Your task to perform on an android device: Go to eBay Image 0: 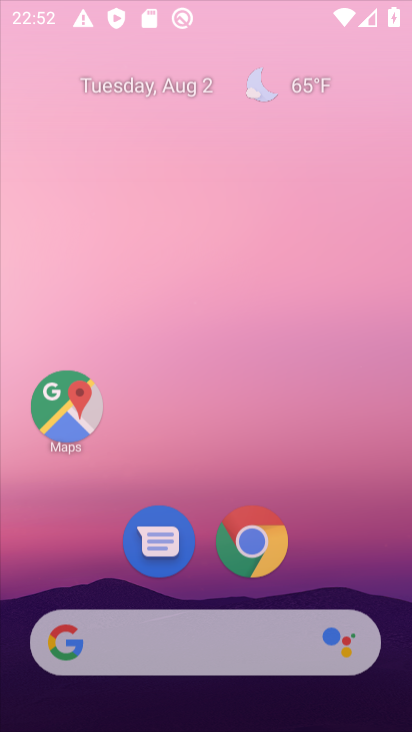
Step 0: drag from (212, 646) to (164, 142)
Your task to perform on an android device: Go to eBay Image 1: 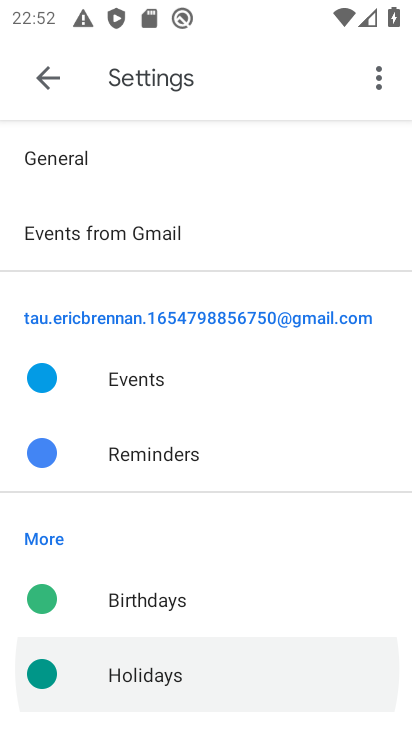
Step 1: drag from (222, 546) to (204, 223)
Your task to perform on an android device: Go to eBay Image 2: 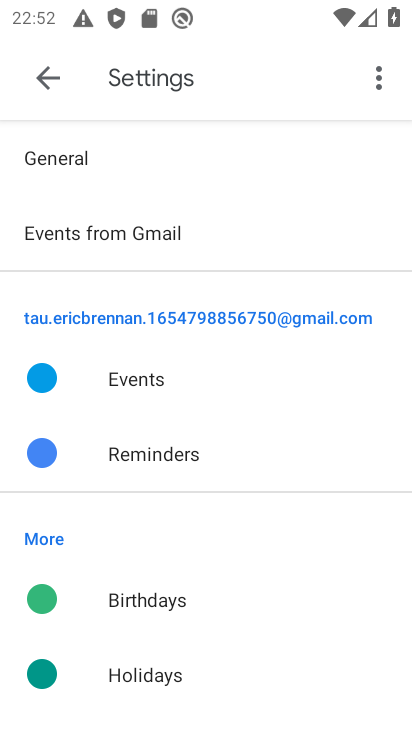
Step 2: click (39, 74)
Your task to perform on an android device: Go to eBay Image 3: 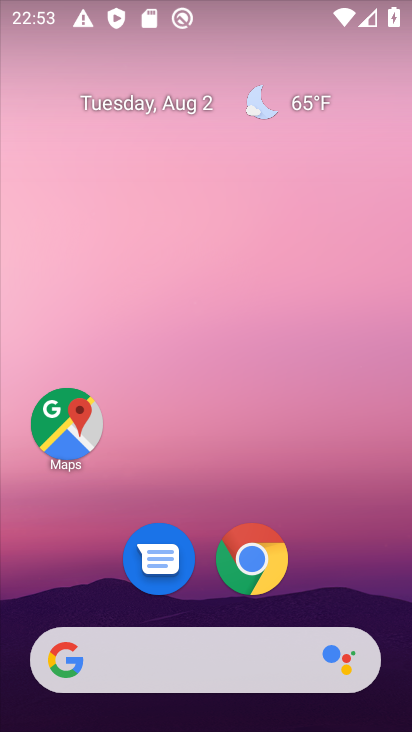
Step 3: drag from (218, 459) to (207, 182)
Your task to perform on an android device: Go to eBay Image 4: 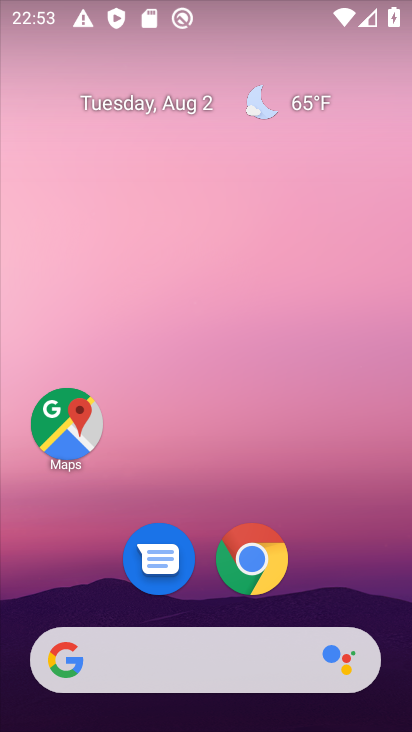
Step 4: drag from (169, 609) to (181, 271)
Your task to perform on an android device: Go to eBay Image 5: 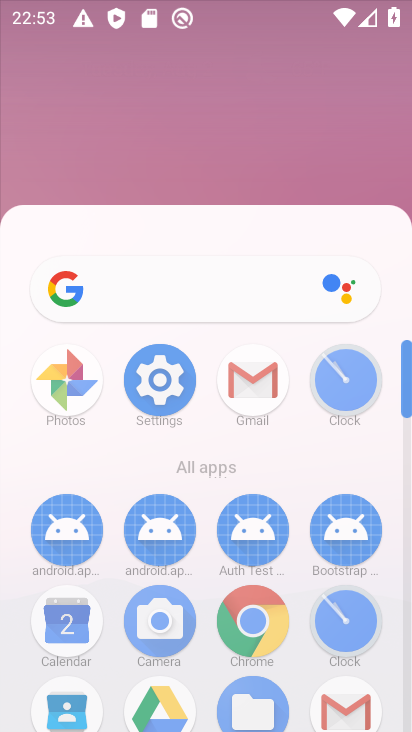
Step 5: drag from (235, 516) to (211, 195)
Your task to perform on an android device: Go to eBay Image 6: 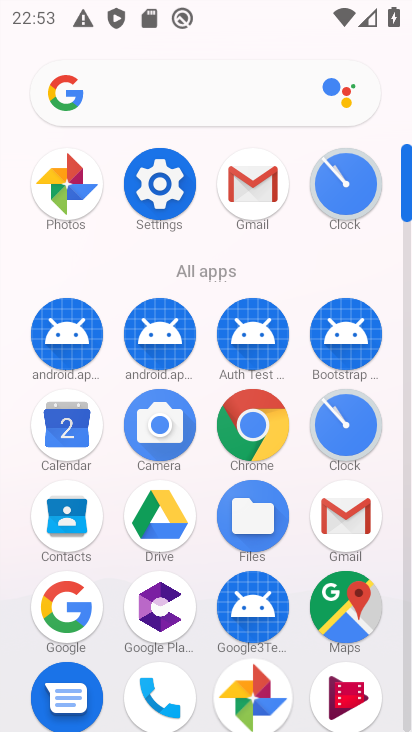
Step 6: drag from (191, 508) to (181, 198)
Your task to perform on an android device: Go to eBay Image 7: 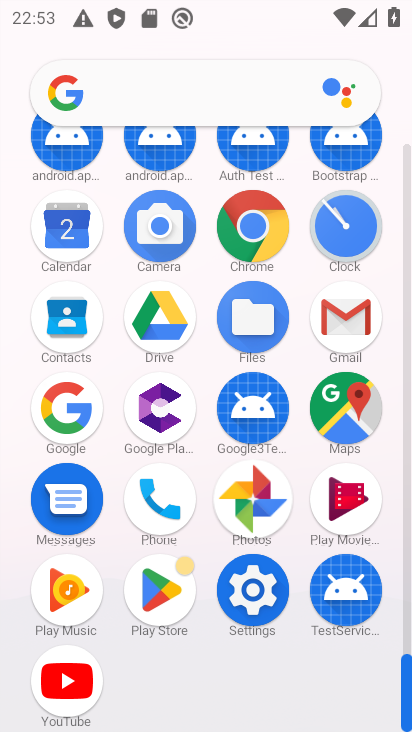
Step 7: click (261, 224)
Your task to perform on an android device: Go to eBay Image 8: 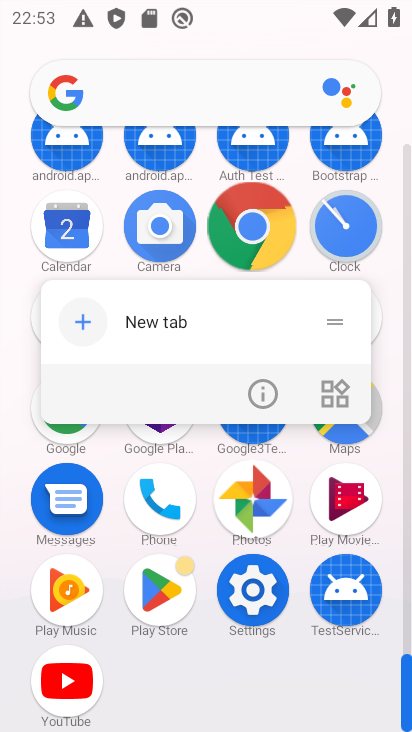
Step 8: click (260, 225)
Your task to perform on an android device: Go to eBay Image 9: 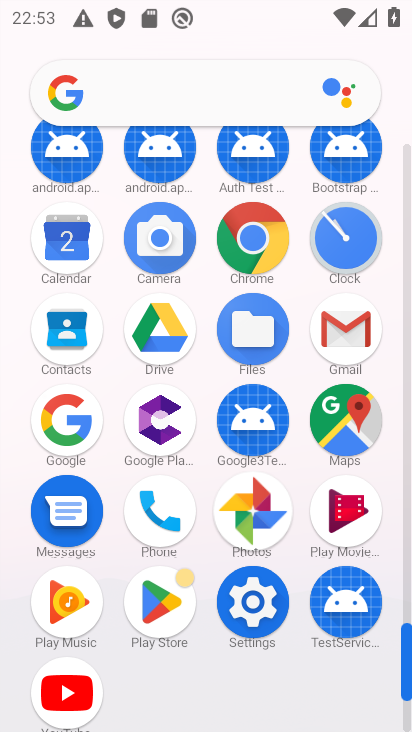
Step 9: click (240, 253)
Your task to perform on an android device: Go to eBay Image 10: 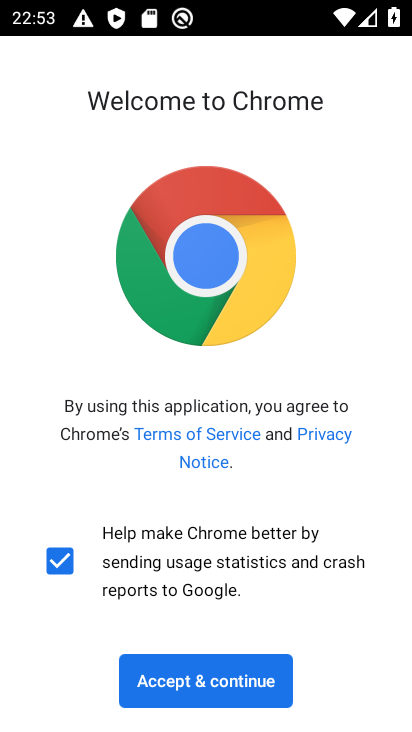
Step 10: click (211, 677)
Your task to perform on an android device: Go to eBay Image 11: 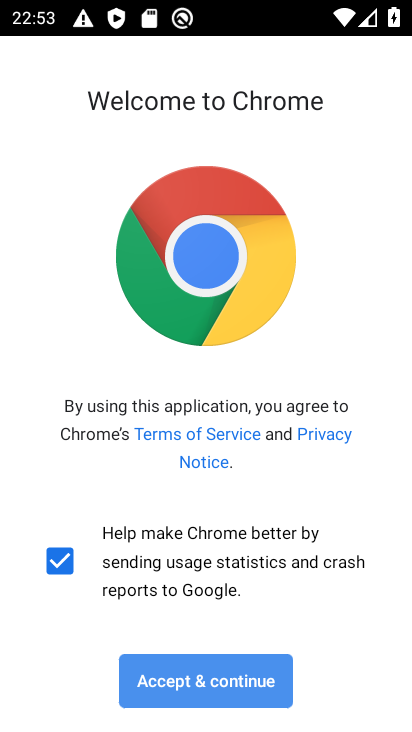
Step 11: click (218, 677)
Your task to perform on an android device: Go to eBay Image 12: 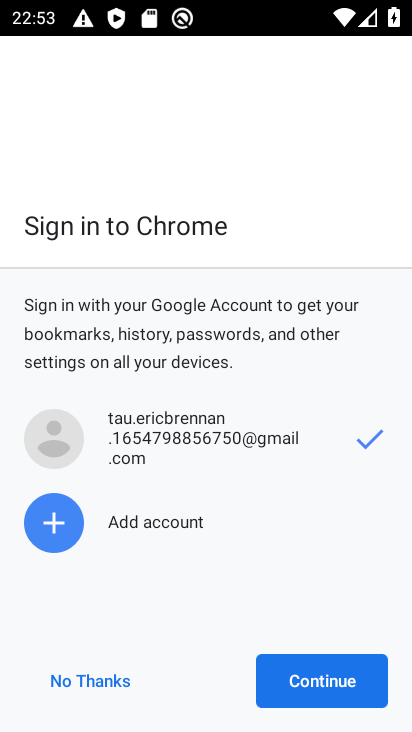
Step 12: click (218, 677)
Your task to perform on an android device: Go to eBay Image 13: 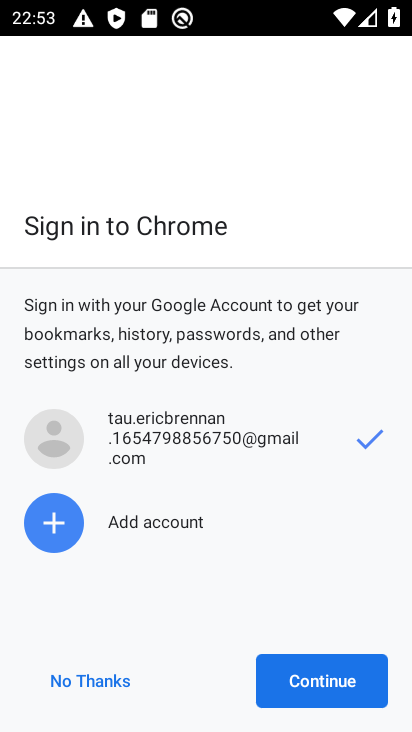
Step 13: click (218, 677)
Your task to perform on an android device: Go to eBay Image 14: 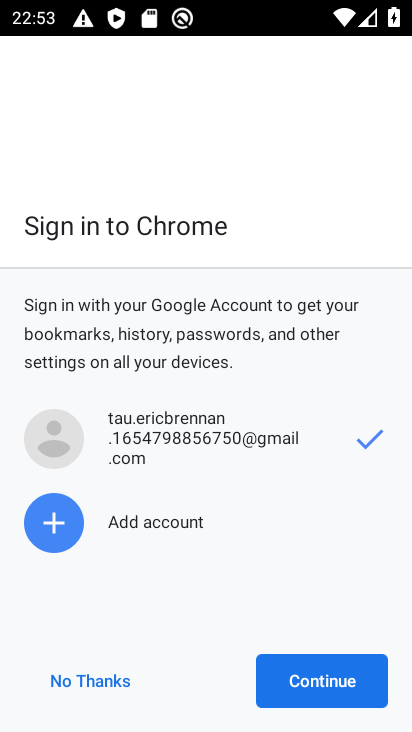
Step 14: click (93, 687)
Your task to perform on an android device: Go to eBay Image 15: 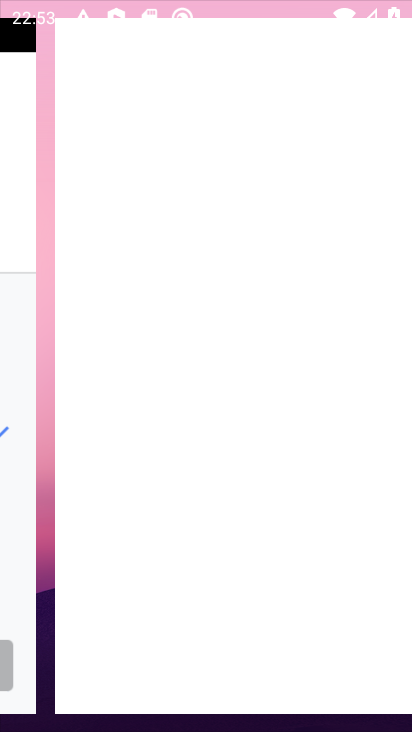
Step 15: click (93, 687)
Your task to perform on an android device: Go to eBay Image 16: 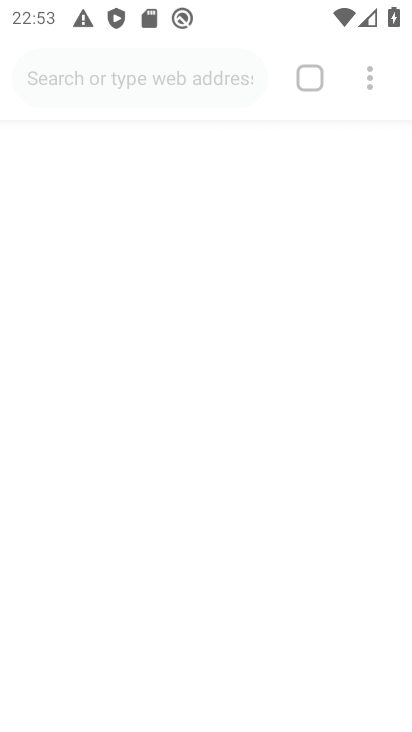
Step 16: click (93, 687)
Your task to perform on an android device: Go to eBay Image 17: 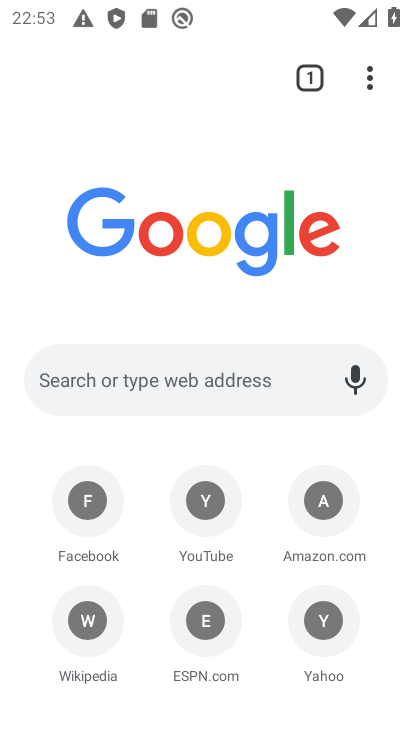
Step 17: click (79, 70)
Your task to perform on an android device: Go to eBay Image 18: 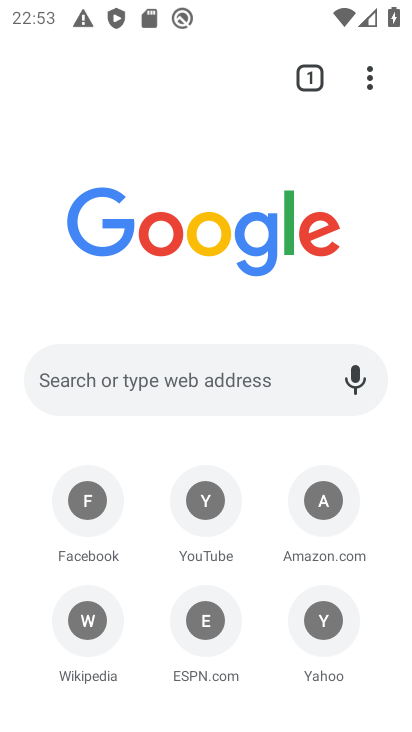
Step 18: click (79, 70)
Your task to perform on an android device: Go to eBay Image 19: 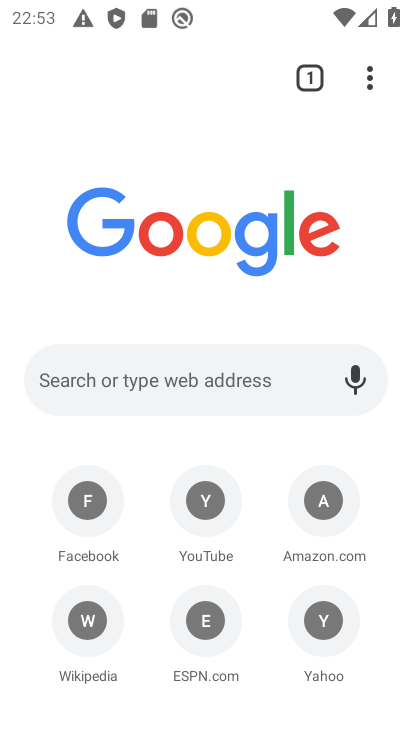
Step 19: click (79, 70)
Your task to perform on an android device: Go to eBay Image 20: 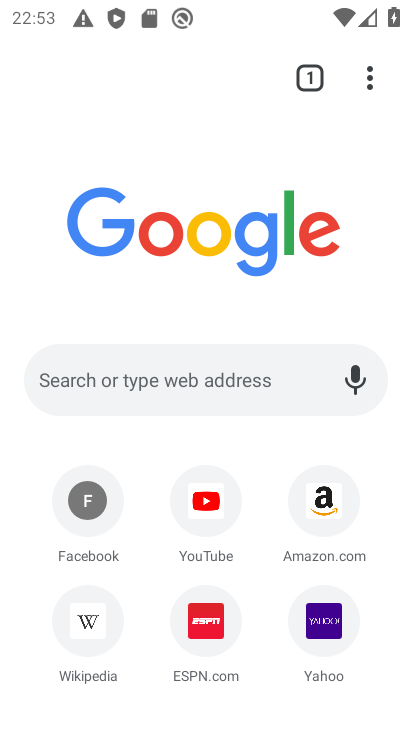
Step 20: click (105, 369)
Your task to perform on an android device: Go to eBay Image 21: 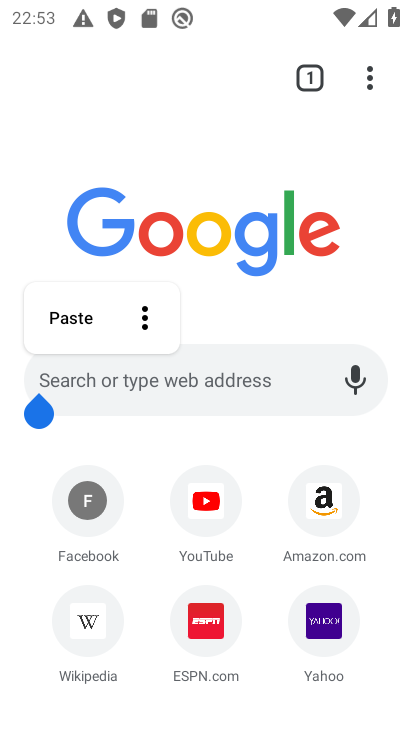
Step 21: click (104, 384)
Your task to perform on an android device: Go to eBay Image 22: 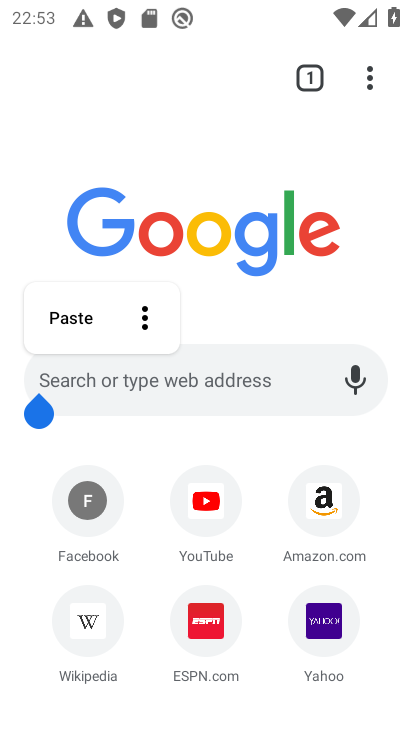
Step 22: type "ebay"
Your task to perform on an android device: Go to eBay Image 23: 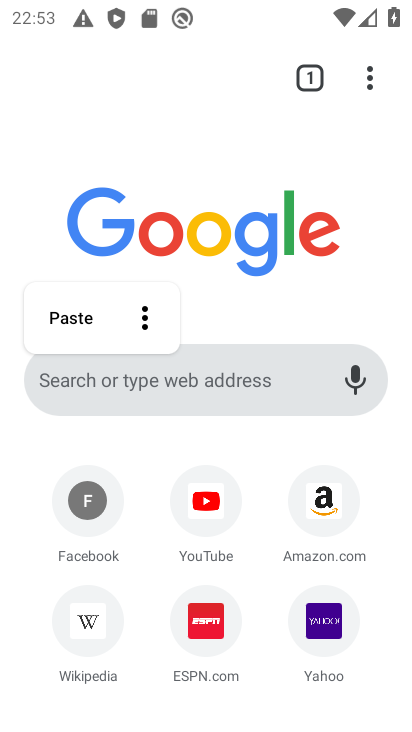
Step 23: click (132, 379)
Your task to perform on an android device: Go to eBay Image 24: 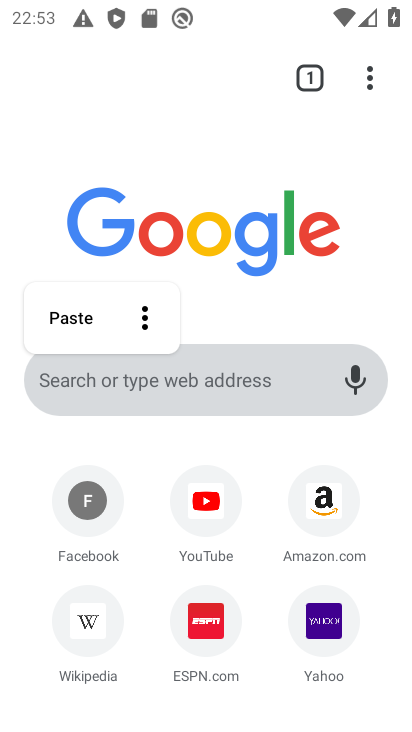
Step 24: click (133, 379)
Your task to perform on an android device: Go to eBay Image 25: 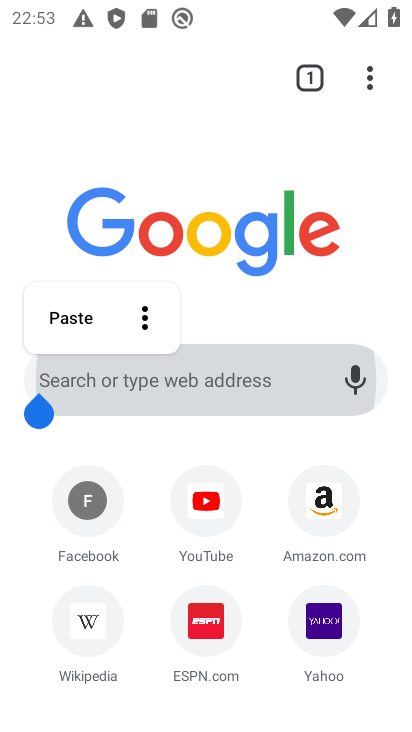
Step 25: click (139, 375)
Your task to perform on an android device: Go to eBay Image 26: 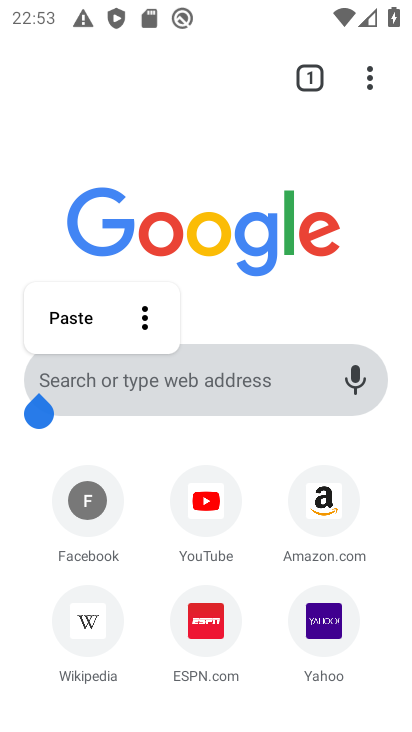
Step 26: click (140, 375)
Your task to perform on an android device: Go to eBay Image 27: 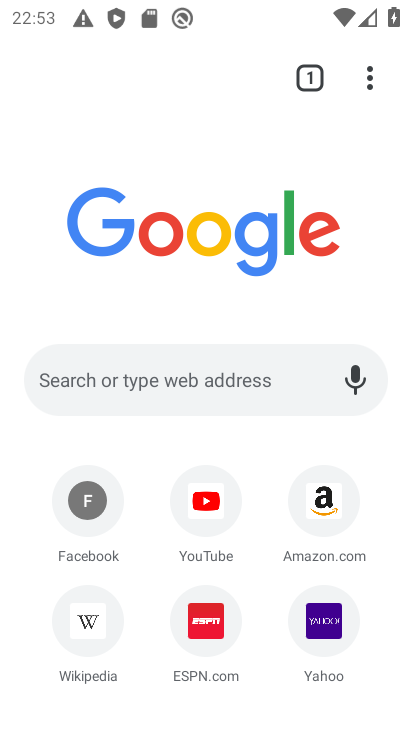
Step 27: click (93, 369)
Your task to perform on an android device: Go to eBay Image 28: 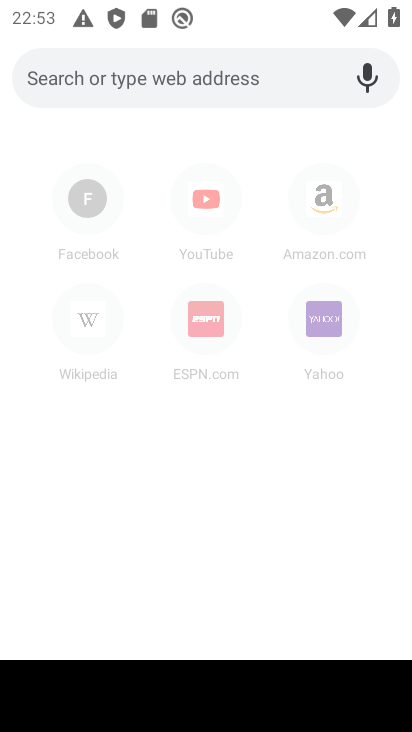
Step 28: type "ebay"
Your task to perform on an android device: Go to eBay Image 29: 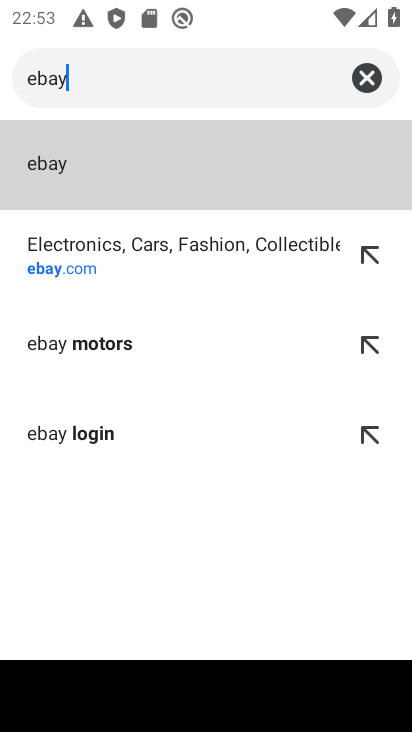
Step 29: click (60, 174)
Your task to perform on an android device: Go to eBay Image 30: 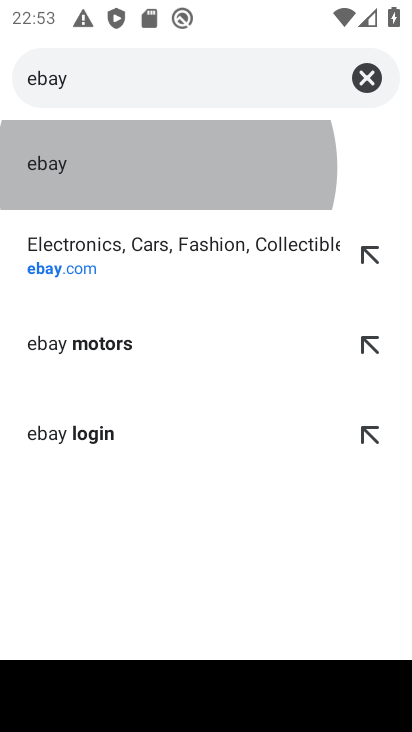
Step 30: click (60, 174)
Your task to perform on an android device: Go to eBay Image 31: 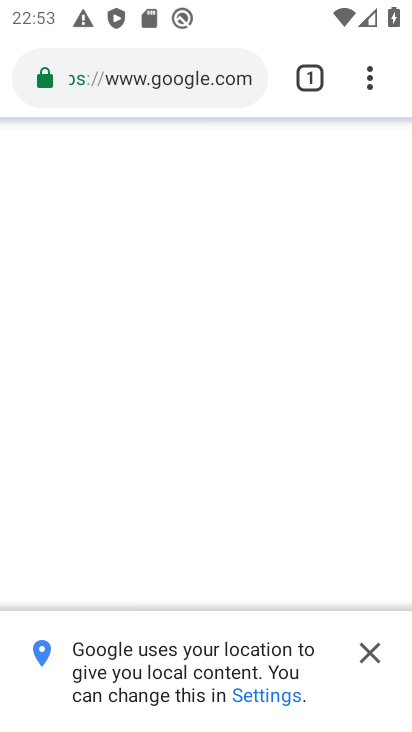
Step 31: task complete